Your task to perform on an android device: Open Google Chrome Image 0: 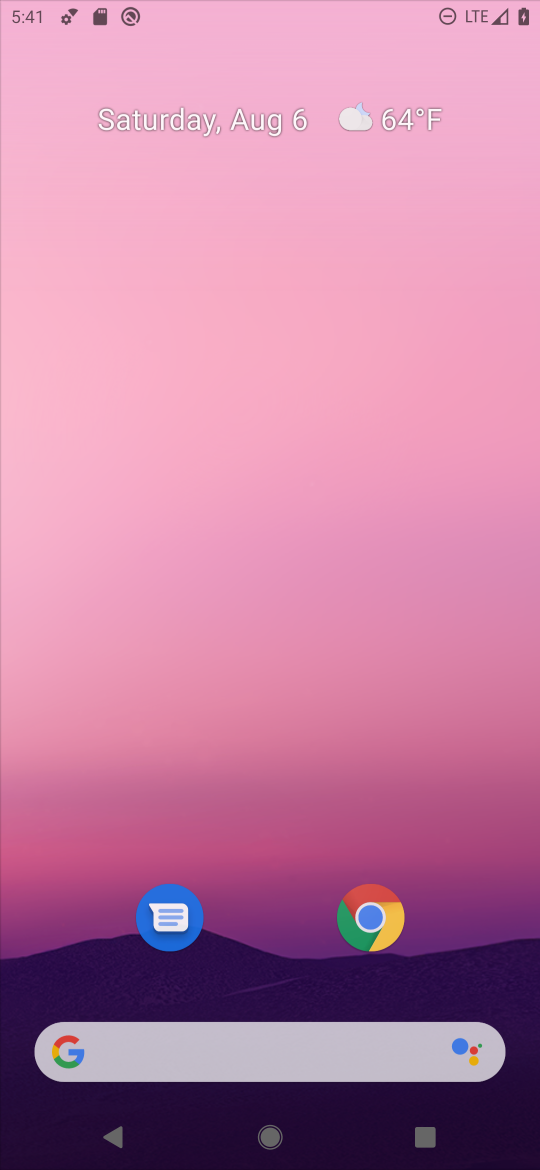
Step 0: press home button
Your task to perform on an android device: Open Google Chrome Image 1: 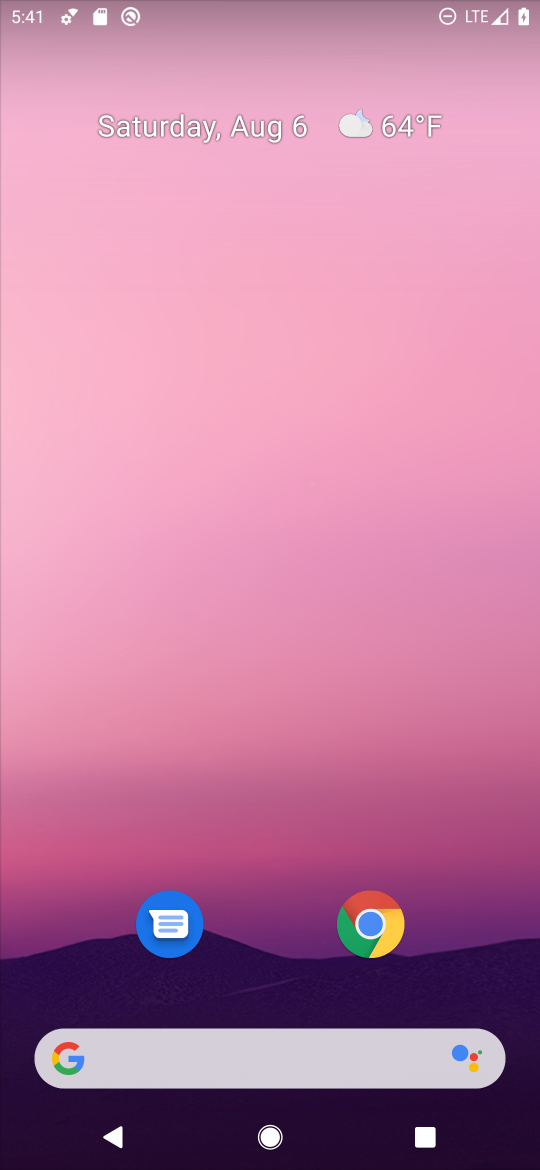
Step 1: click (368, 923)
Your task to perform on an android device: Open Google Chrome Image 2: 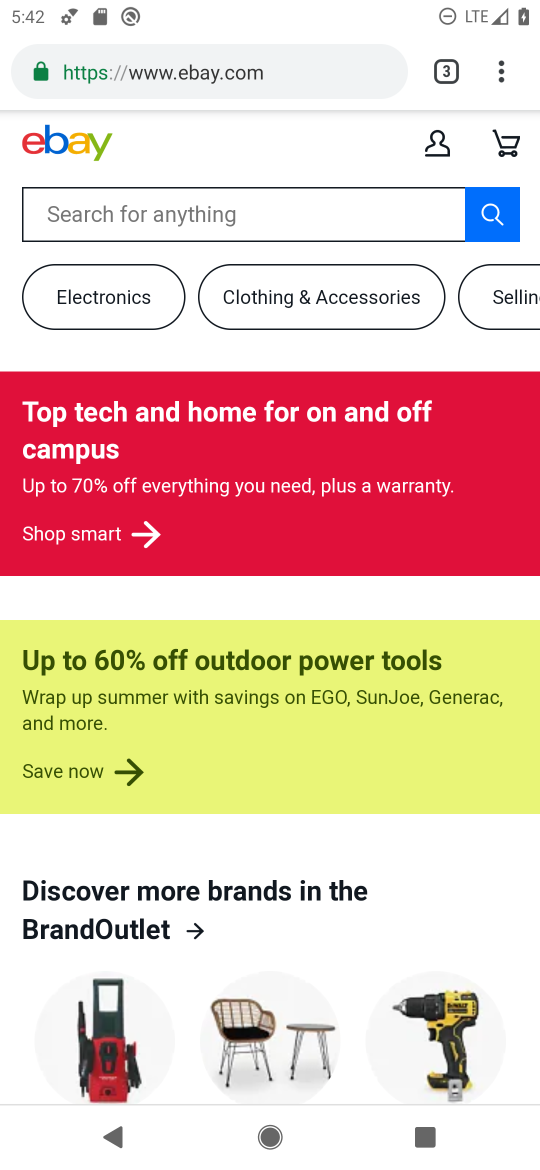
Step 2: click (497, 71)
Your task to perform on an android device: Open Google Chrome Image 3: 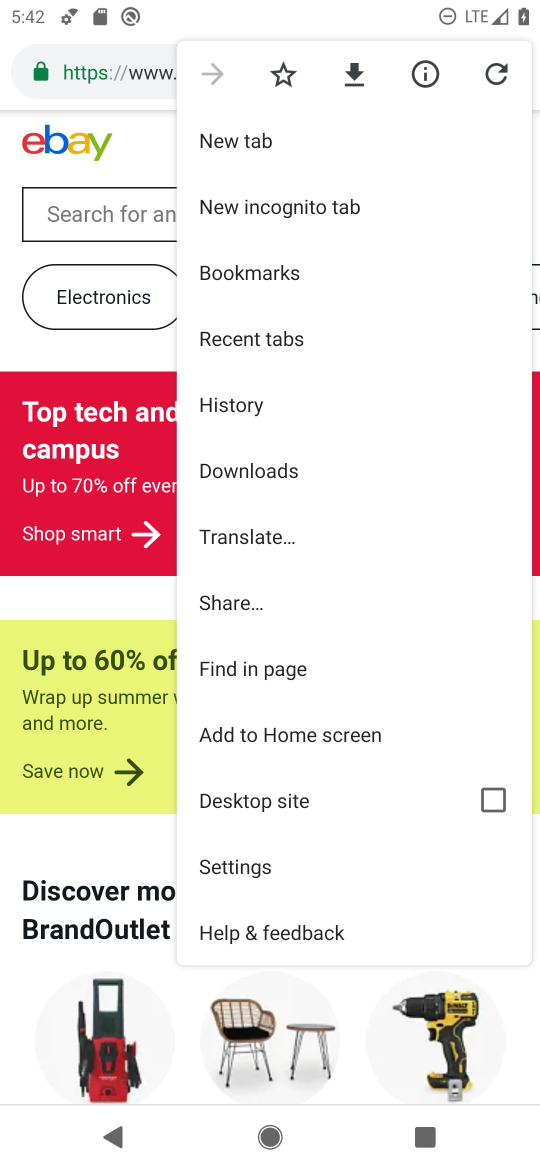
Step 3: click (264, 131)
Your task to perform on an android device: Open Google Chrome Image 4: 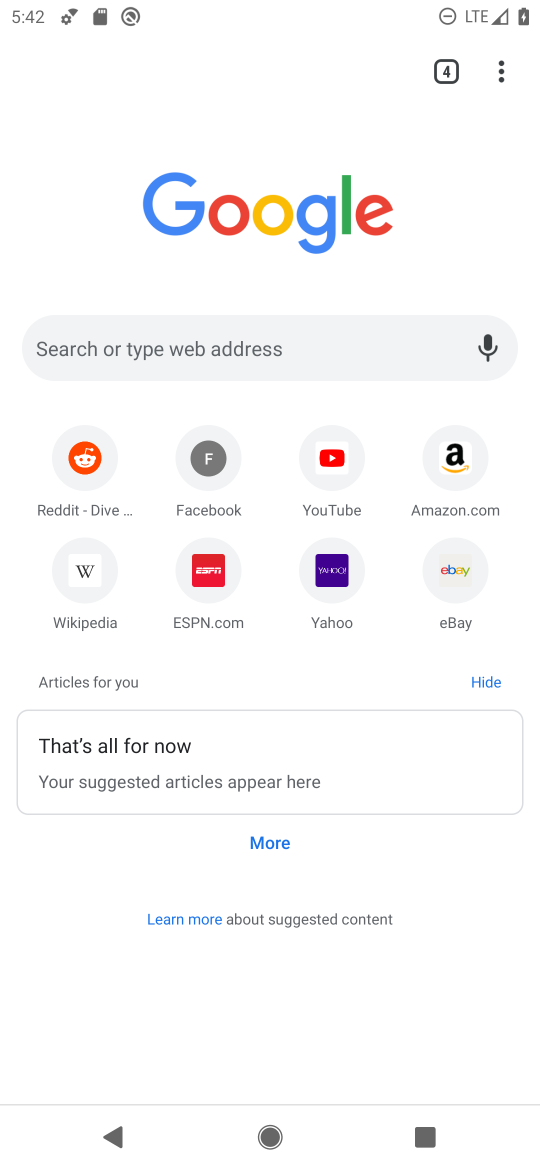
Step 4: task complete